Your task to perform on an android device: install app "DuckDuckGo Privacy Browser" Image 0: 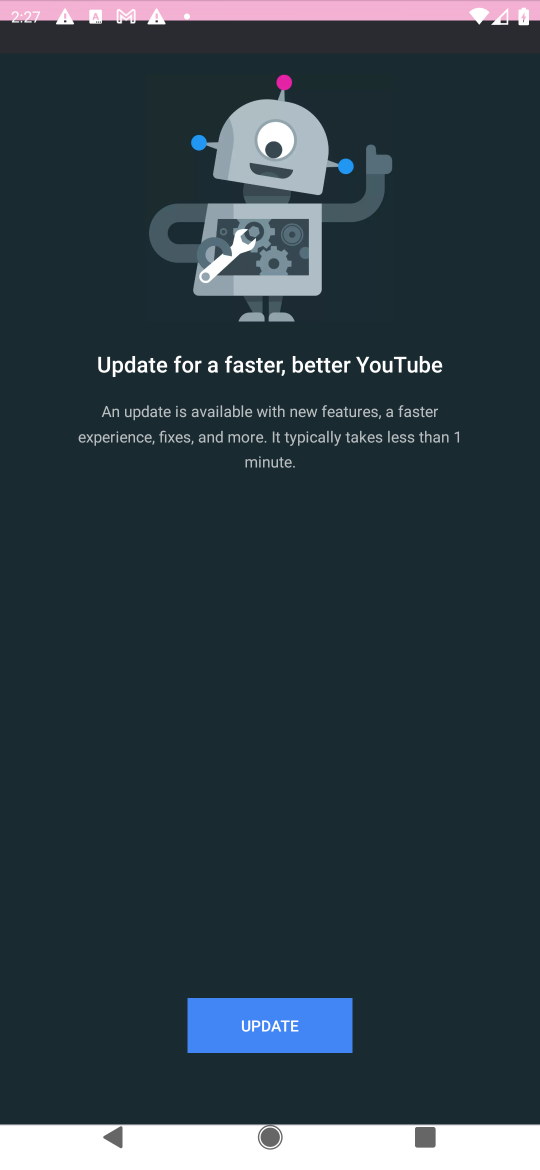
Step 0: press home button
Your task to perform on an android device: install app "DuckDuckGo Privacy Browser" Image 1: 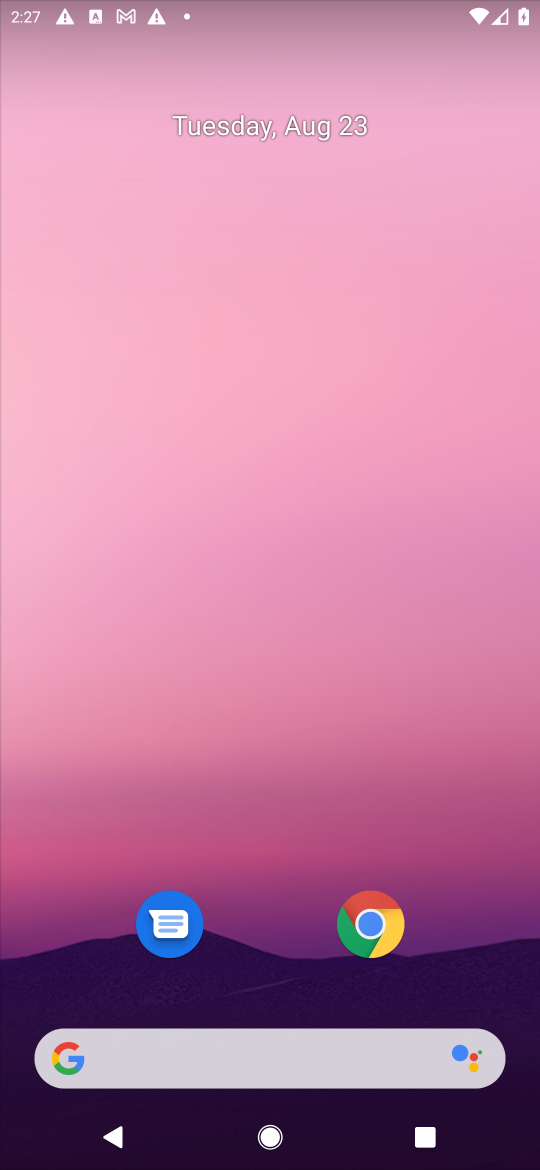
Step 1: drag from (476, 975) to (491, 257)
Your task to perform on an android device: install app "DuckDuckGo Privacy Browser" Image 2: 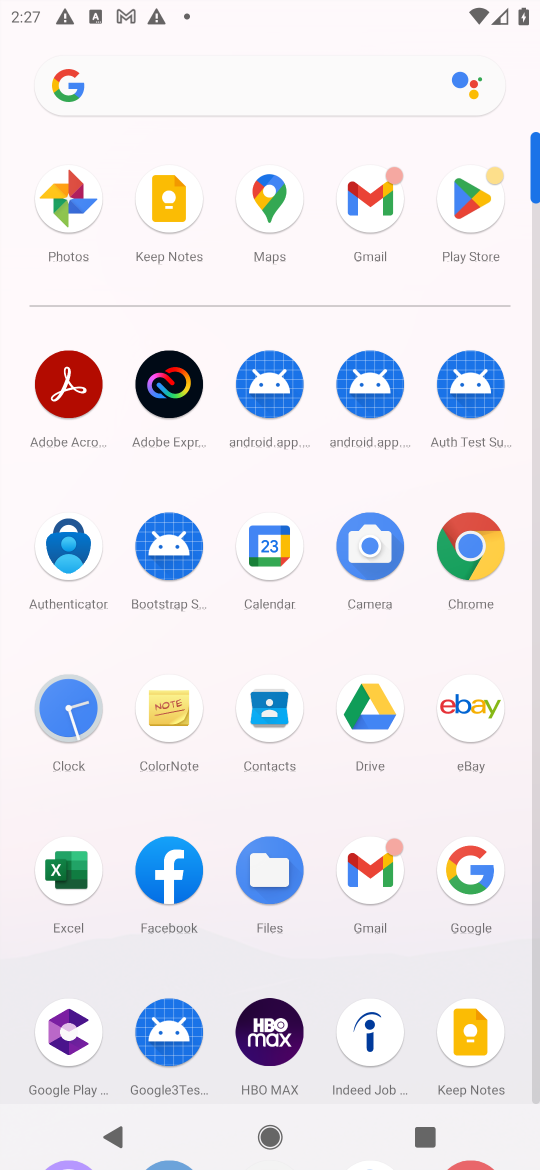
Step 2: click (465, 197)
Your task to perform on an android device: install app "DuckDuckGo Privacy Browser" Image 3: 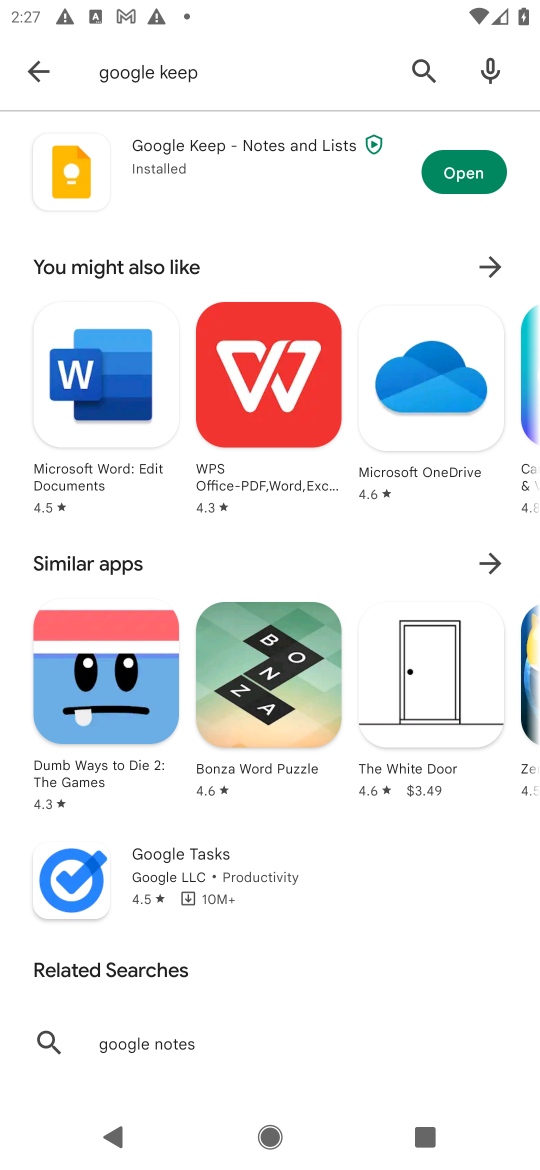
Step 3: press back button
Your task to perform on an android device: install app "DuckDuckGo Privacy Browser" Image 4: 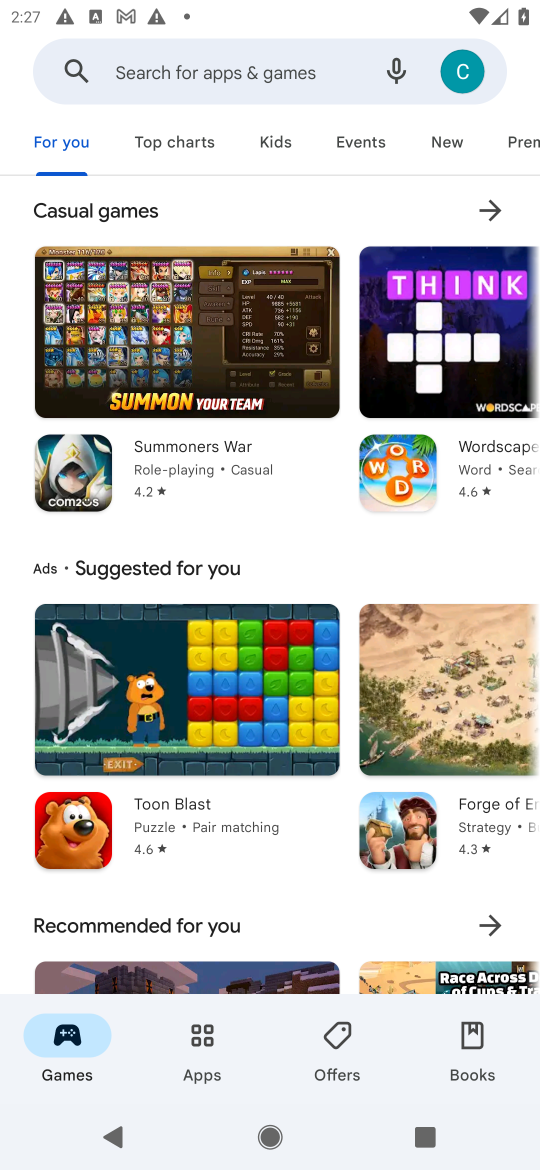
Step 4: click (250, 71)
Your task to perform on an android device: install app "DuckDuckGo Privacy Browser" Image 5: 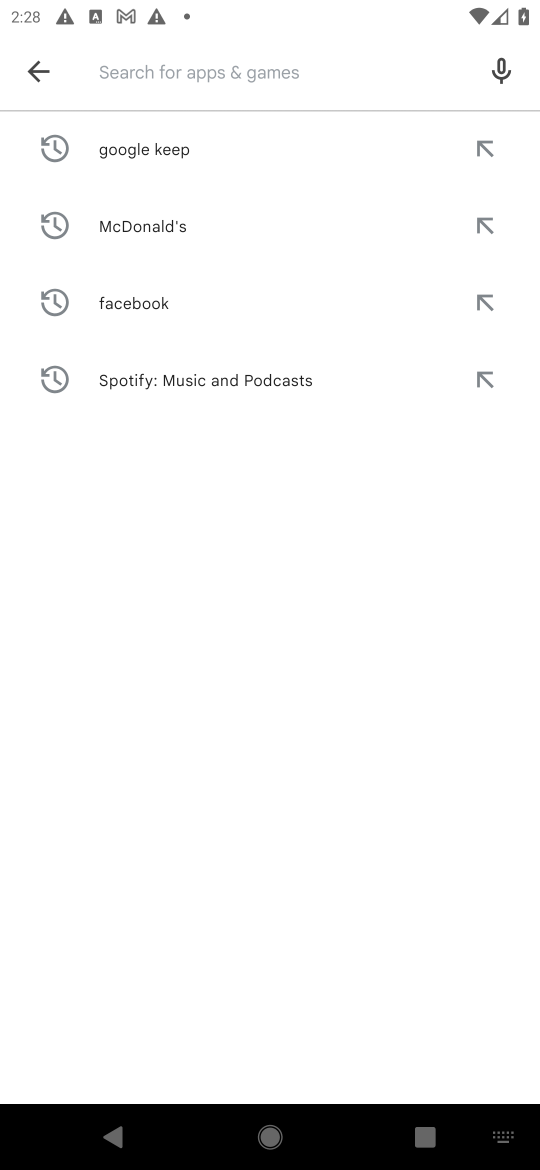
Step 5: type "DuckDuckGo Privacy Browser"
Your task to perform on an android device: install app "DuckDuckGo Privacy Browser" Image 6: 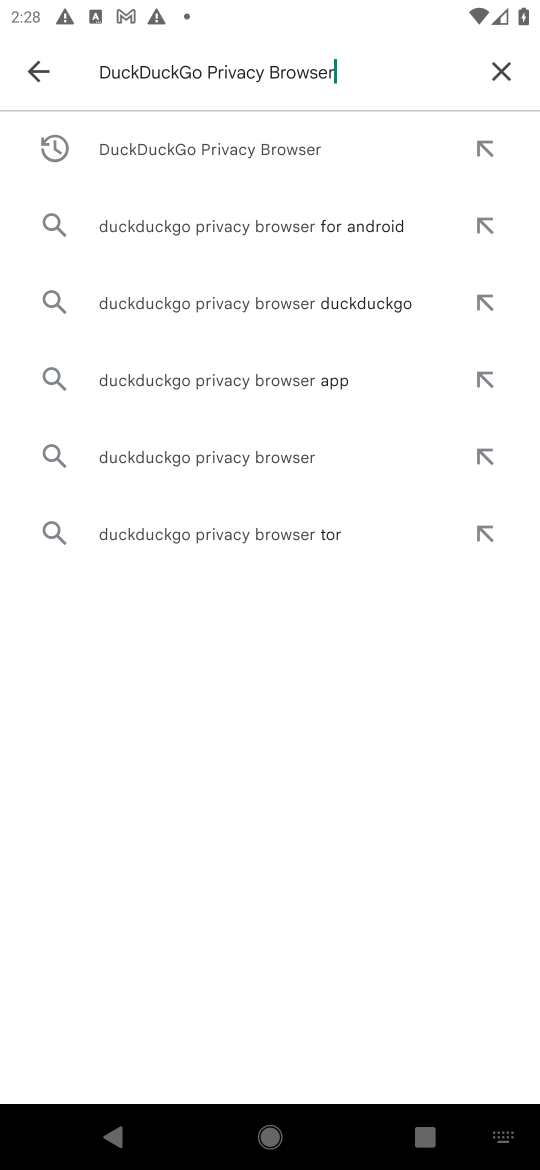
Step 6: press enter
Your task to perform on an android device: install app "DuckDuckGo Privacy Browser" Image 7: 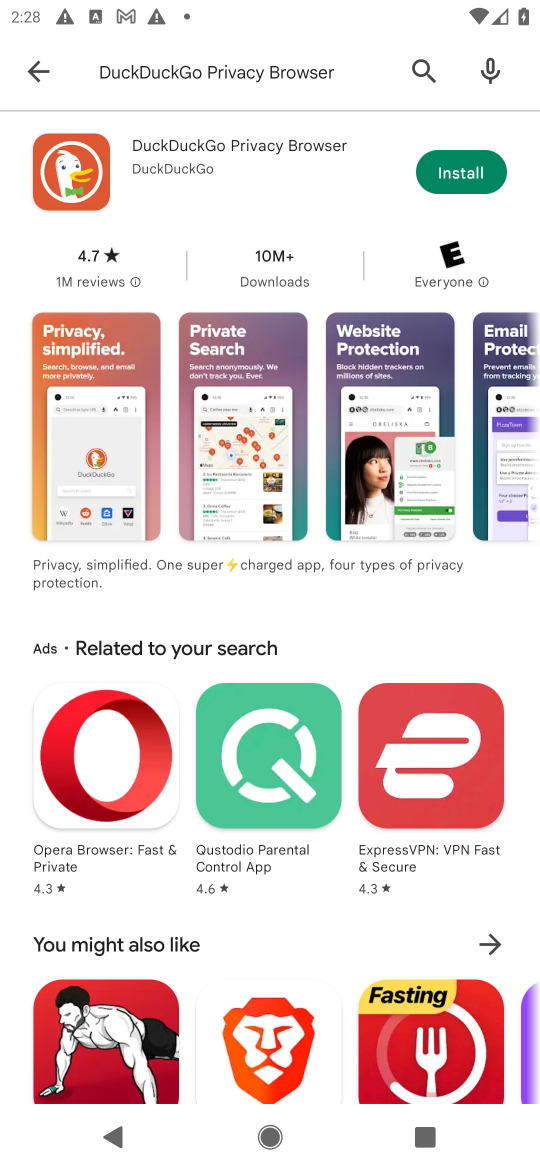
Step 7: click (463, 169)
Your task to perform on an android device: install app "DuckDuckGo Privacy Browser" Image 8: 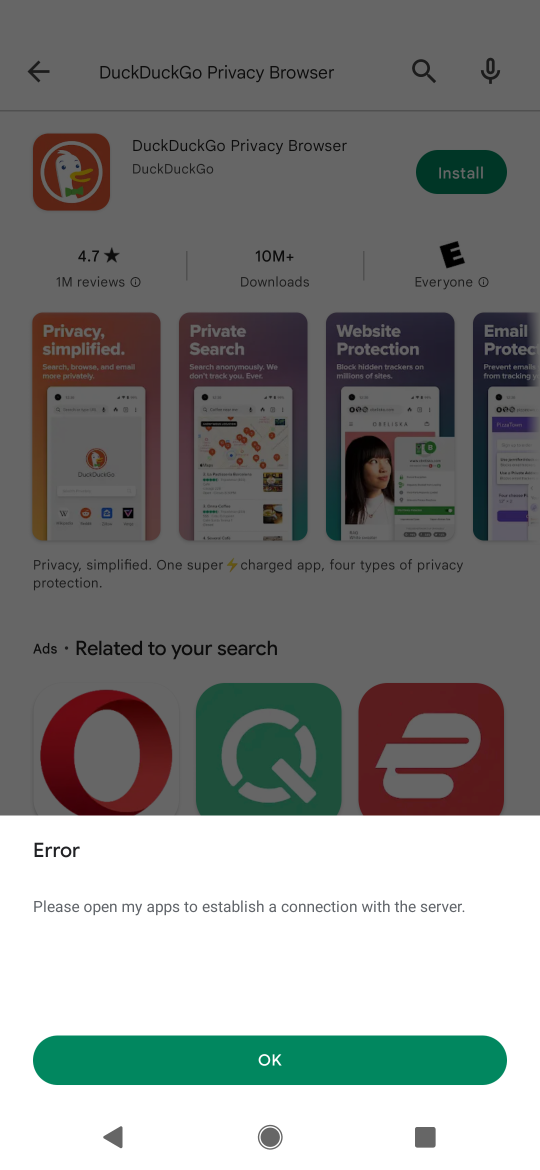
Step 8: task complete